Your task to perform on an android device: Open the calendar and show me this week's events? Image 0: 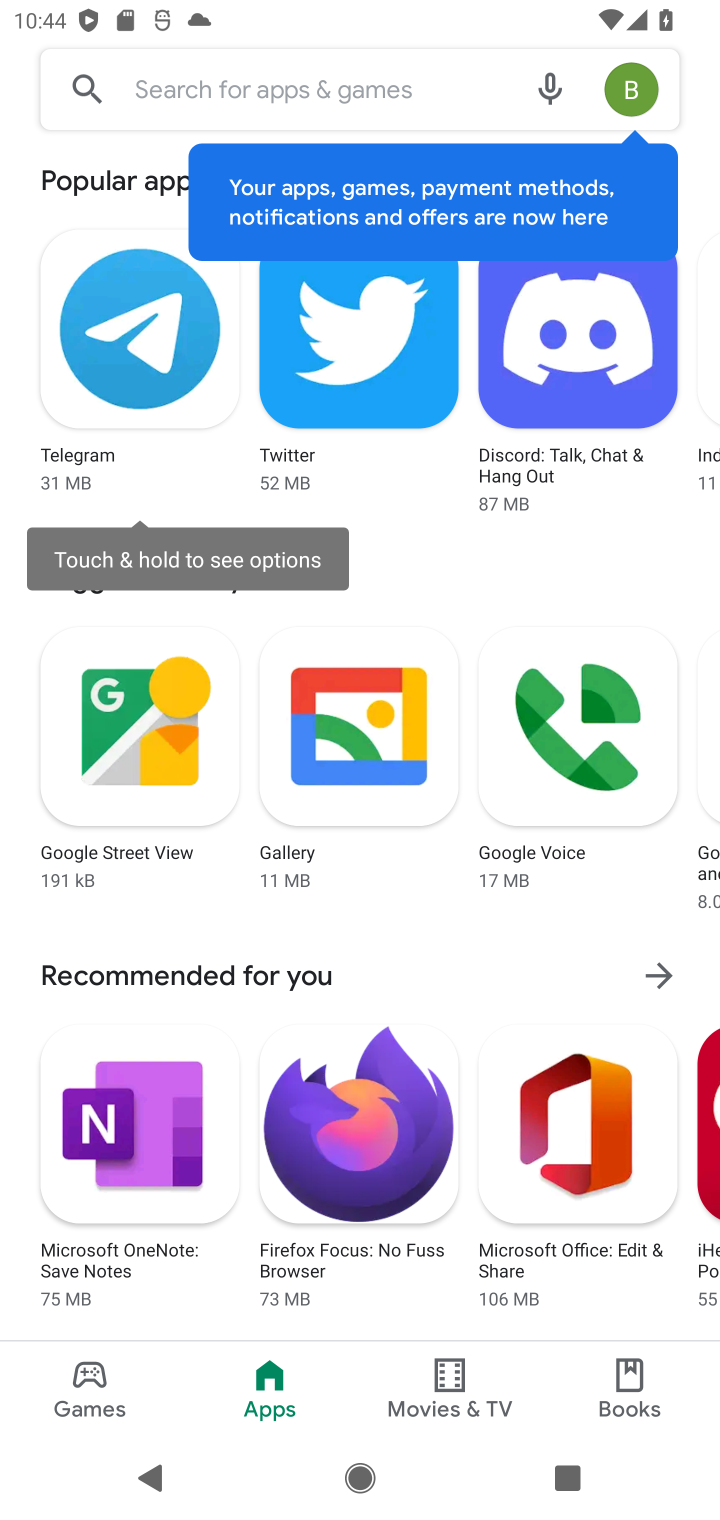
Step 0: press home button
Your task to perform on an android device: Open the calendar and show me this week's events? Image 1: 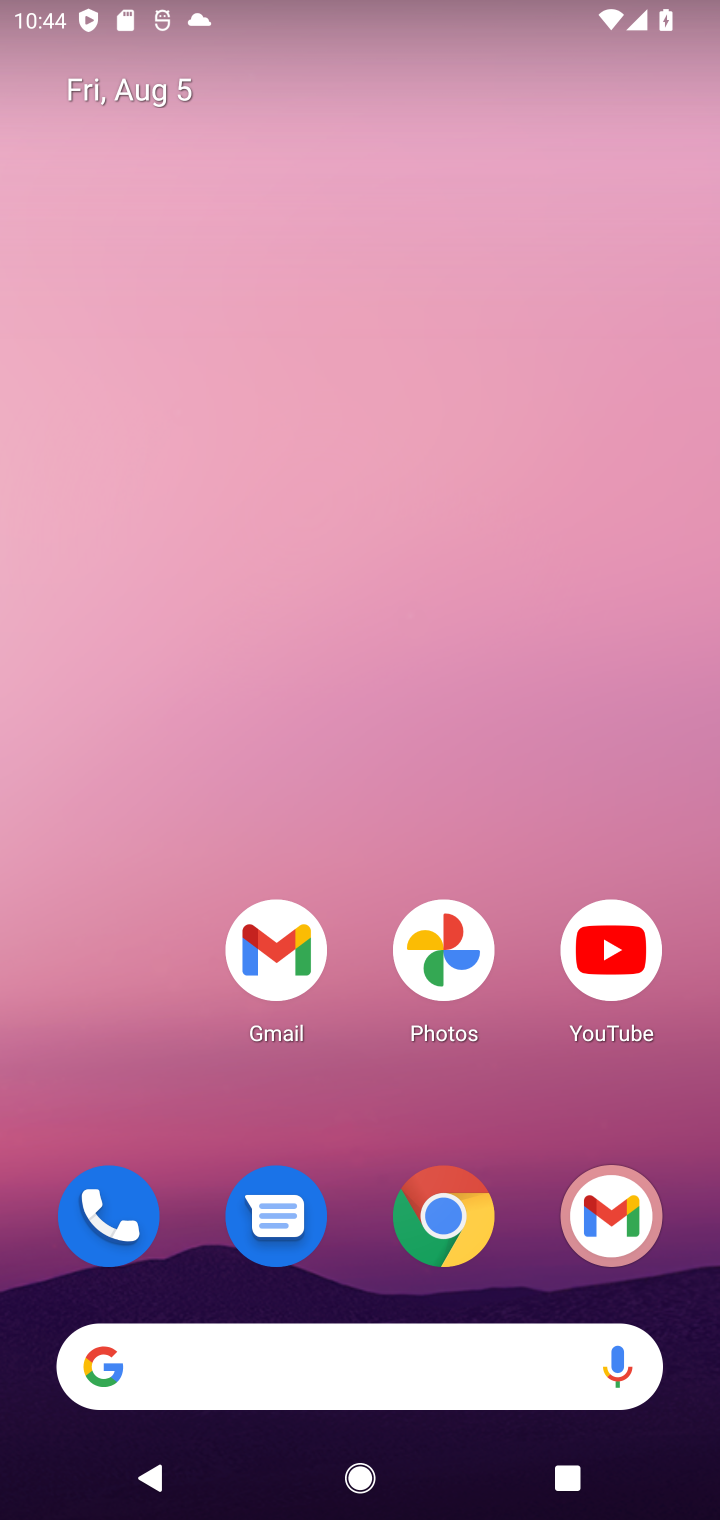
Step 1: drag from (450, 1136) to (523, 80)
Your task to perform on an android device: Open the calendar and show me this week's events? Image 2: 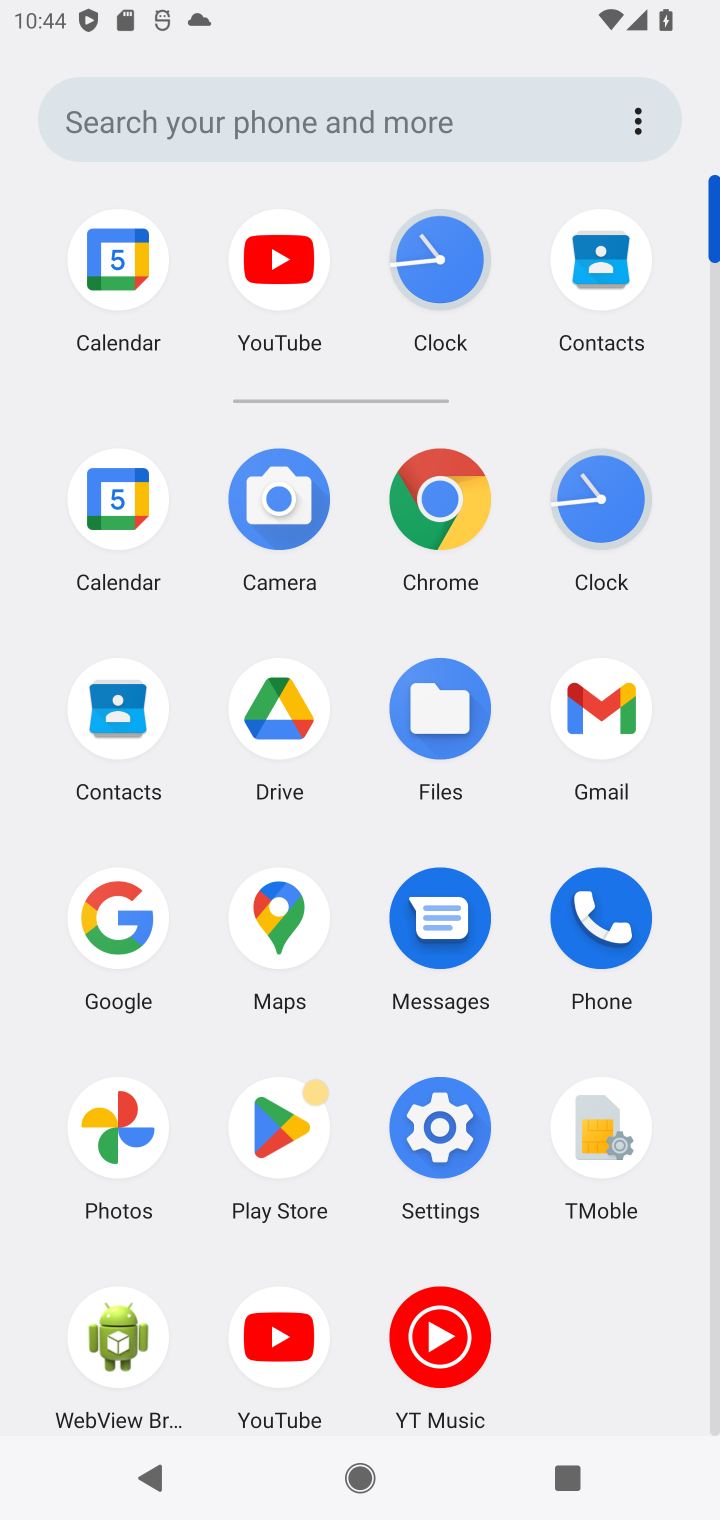
Step 2: click (143, 485)
Your task to perform on an android device: Open the calendar and show me this week's events? Image 3: 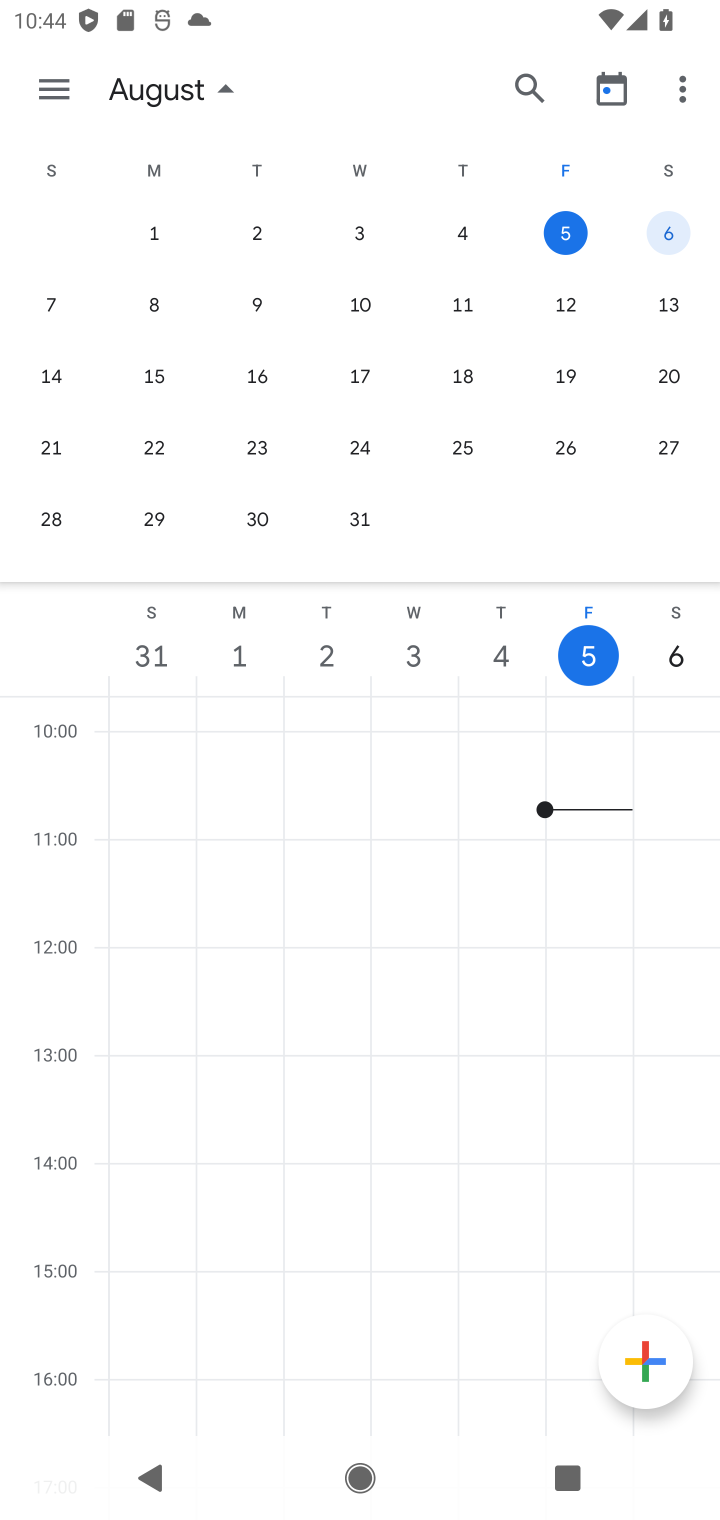
Step 3: click (667, 235)
Your task to perform on an android device: Open the calendar and show me this week's events? Image 4: 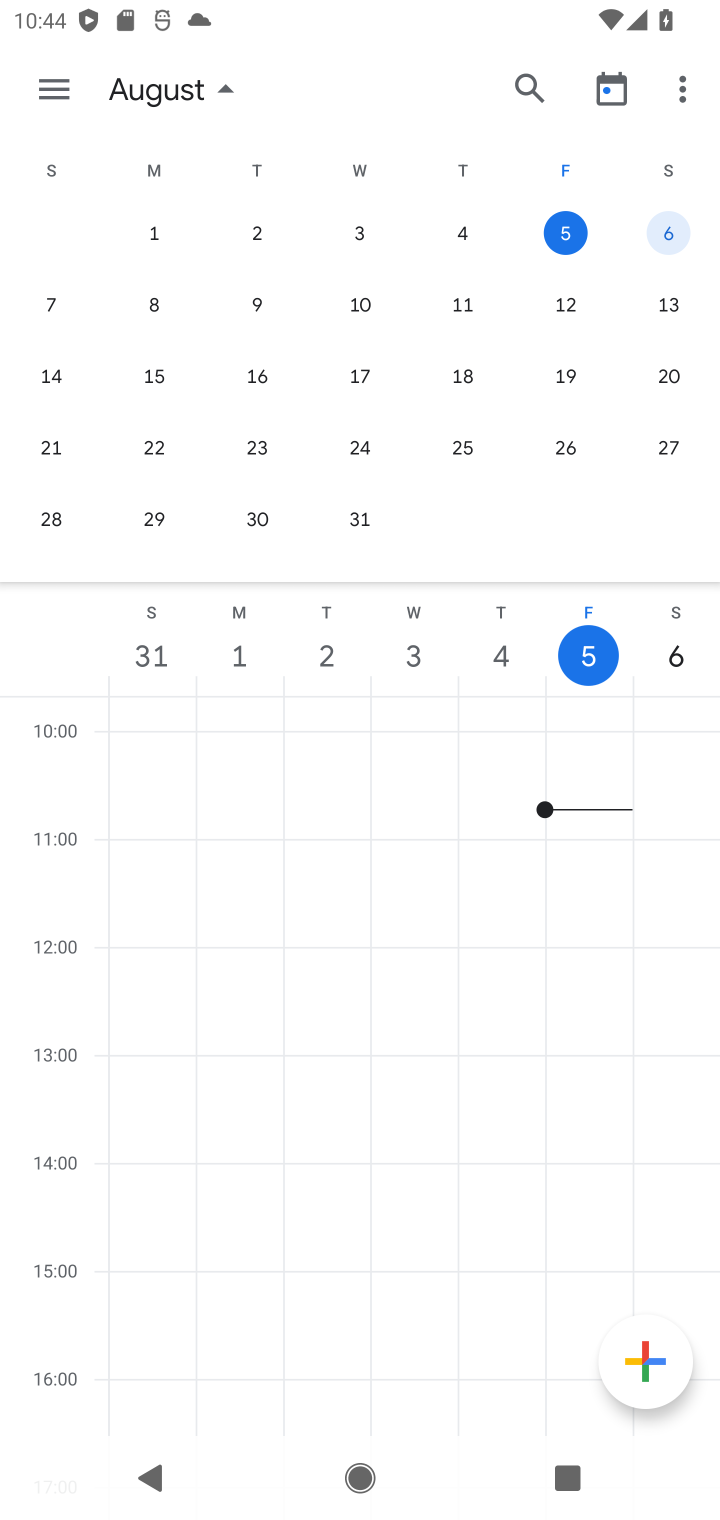
Step 4: task complete